Your task to perform on an android device: turn on airplane mode Image 0: 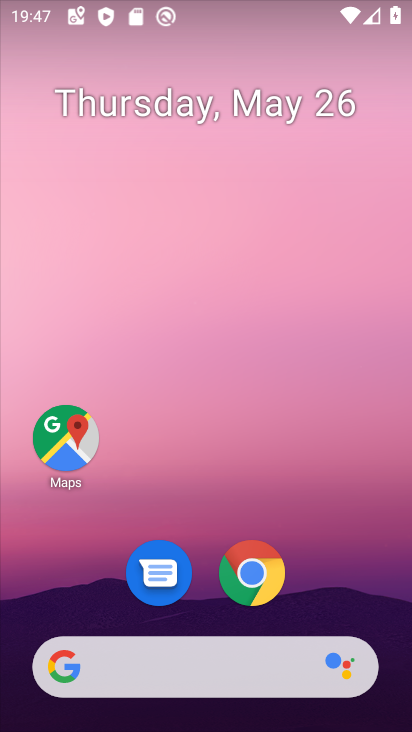
Step 0: drag from (355, 459) to (407, 297)
Your task to perform on an android device: turn on airplane mode Image 1: 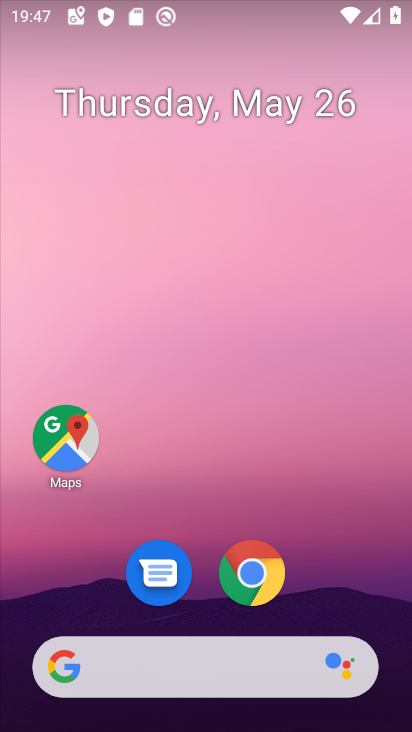
Step 1: drag from (331, 557) to (253, 157)
Your task to perform on an android device: turn on airplane mode Image 2: 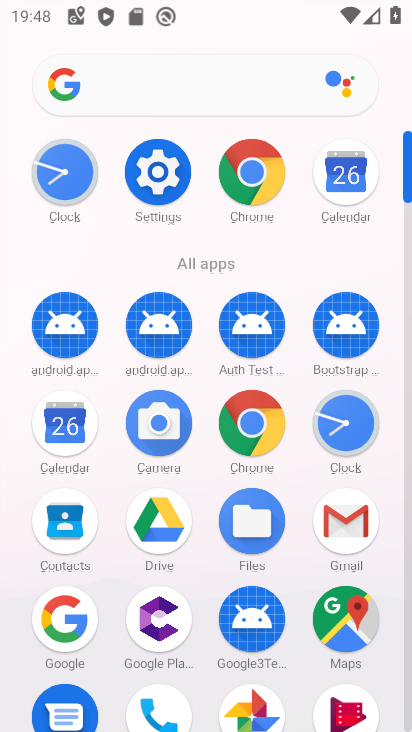
Step 2: click (156, 160)
Your task to perform on an android device: turn on airplane mode Image 3: 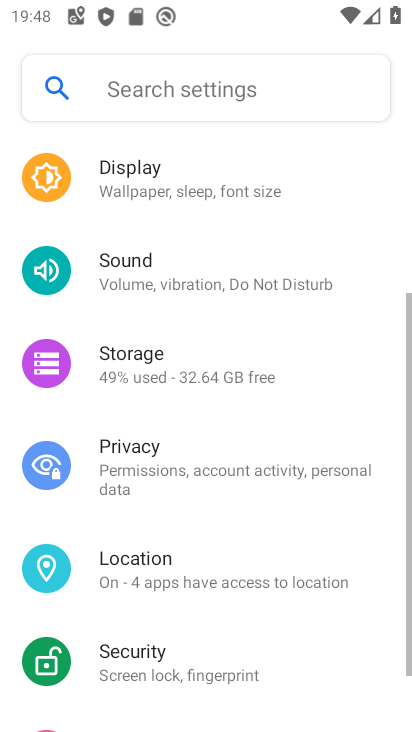
Step 3: drag from (156, 160) to (152, 731)
Your task to perform on an android device: turn on airplane mode Image 4: 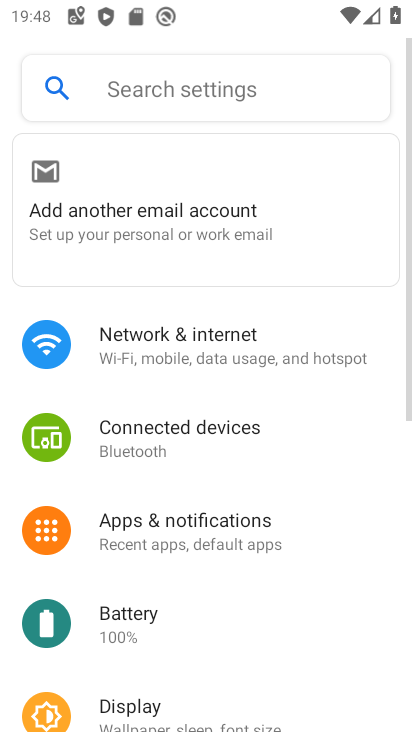
Step 4: click (139, 335)
Your task to perform on an android device: turn on airplane mode Image 5: 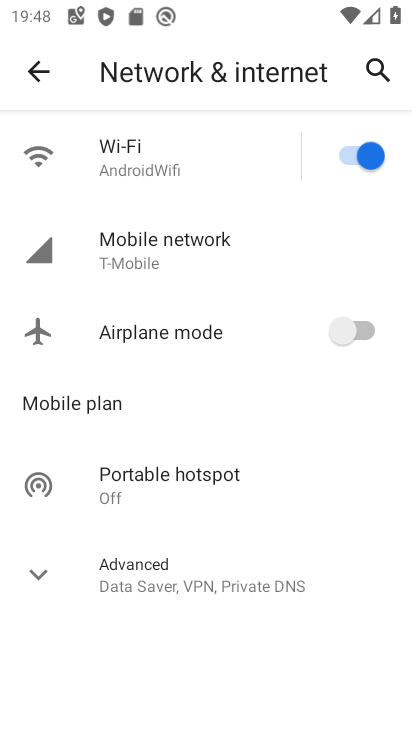
Step 5: click (376, 322)
Your task to perform on an android device: turn on airplane mode Image 6: 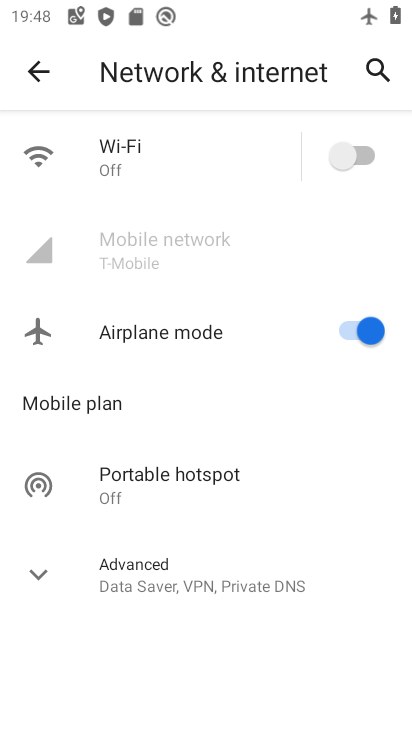
Step 6: task complete